Your task to perform on an android device: change notifications settings Image 0: 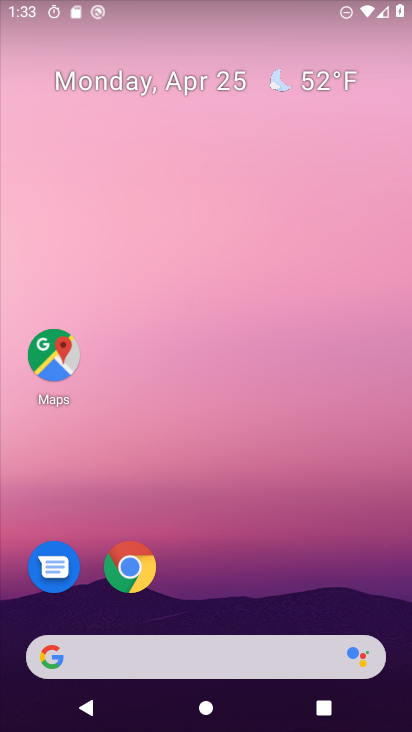
Step 0: drag from (288, 545) to (313, 29)
Your task to perform on an android device: change notifications settings Image 1: 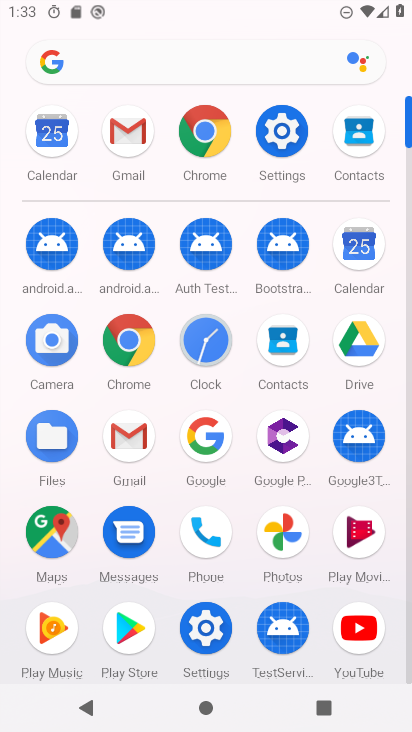
Step 1: click (281, 130)
Your task to perform on an android device: change notifications settings Image 2: 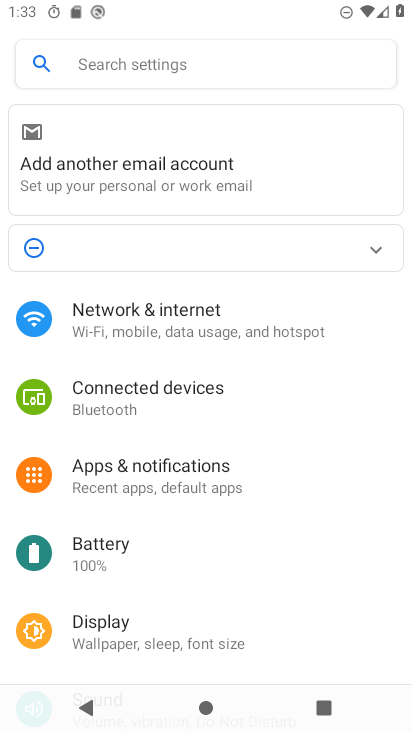
Step 2: click (203, 471)
Your task to perform on an android device: change notifications settings Image 3: 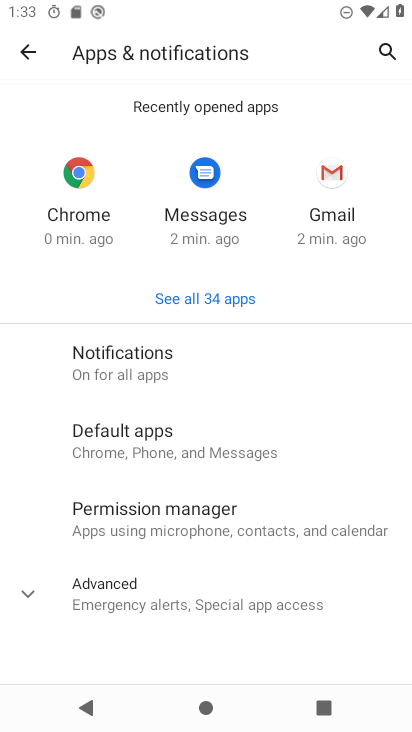
Step 3: click (149, 360)
Your task to perform on an android device: change notifications settings Image 4: 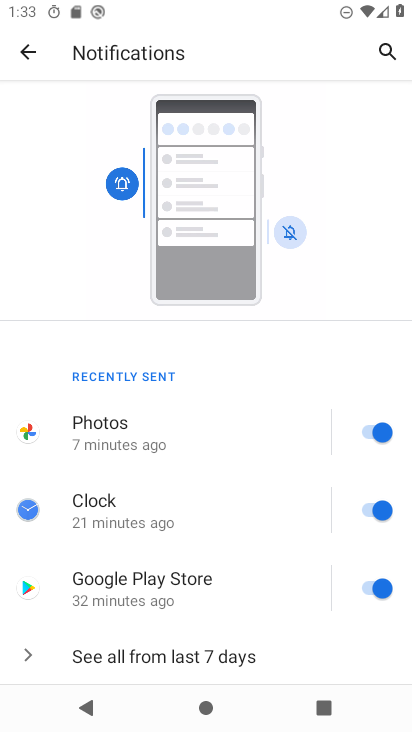
Step 4: click (235, 655)
Your task to perform on an android device: change notifications settings Image 5: 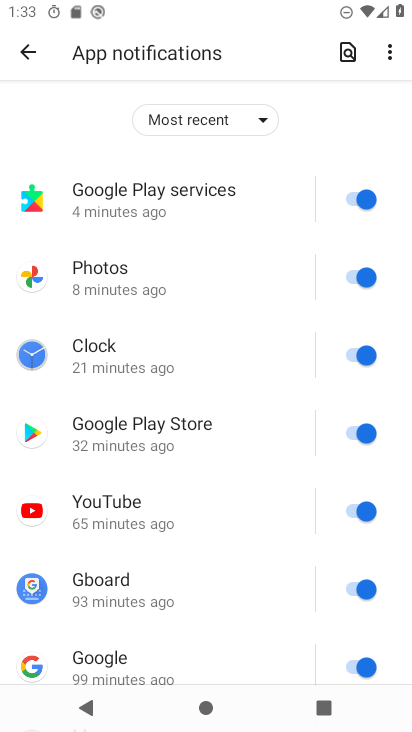
Step 5: click (354, 196)
Your task to perform on an android device: change notifications settings Image 6: 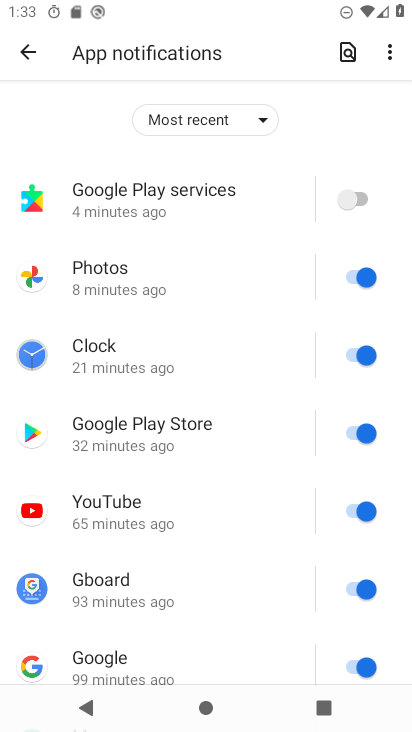
Step 6: click (360, 274)
Your task to perform on an android device: change notifications settings Image 7: 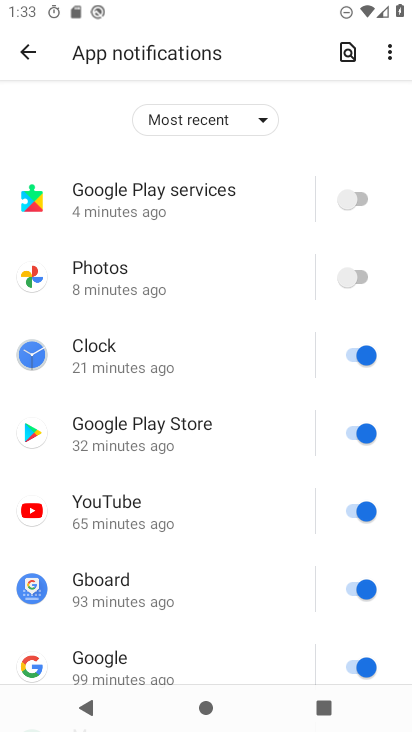
Step 7: click (358, 351)
Your task to perform on an android device: change notifications settings Image 8: 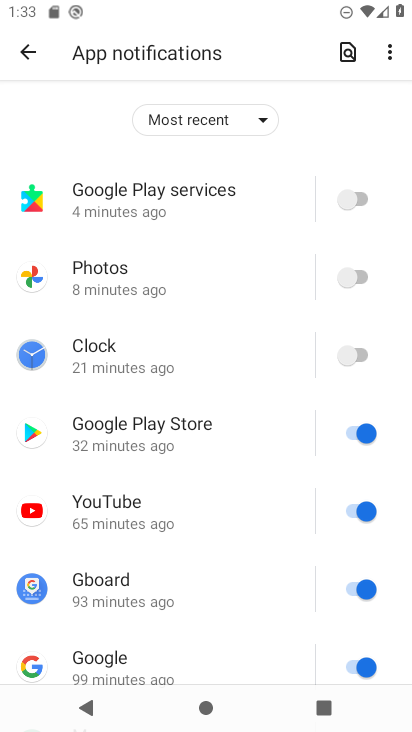
Step 8: click (361, 419)
Your task to perform on an android device: change notifications settings Image 9: 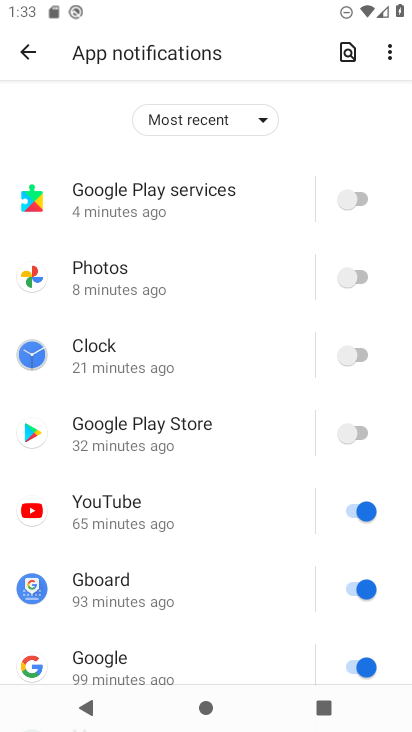
Step 9: click (361, 512)
Your task to perform on an android device: change notifications settings Image 10: 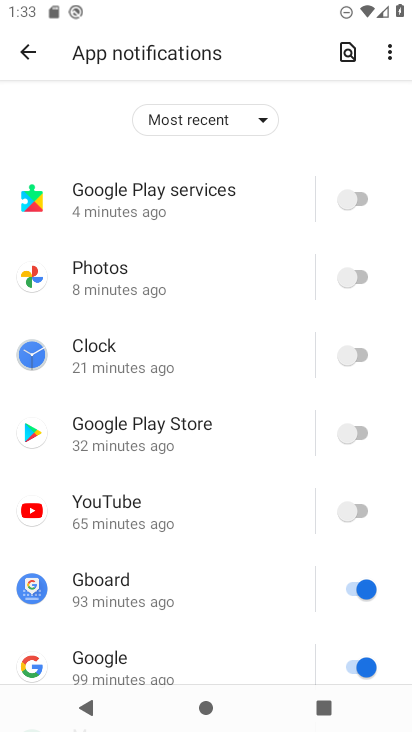
Step 10: click (360, 579)
Your task to perform on an android device: change notifications settings Image 11: 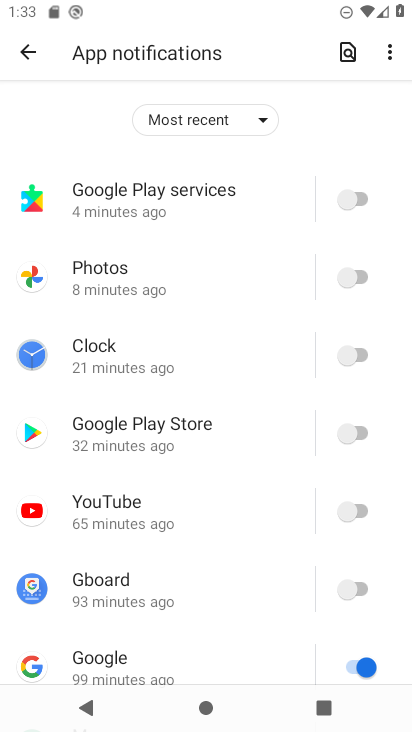
Step 11: click (355, 657)
Your task to perform on an android device: change notifications settings Image 12: 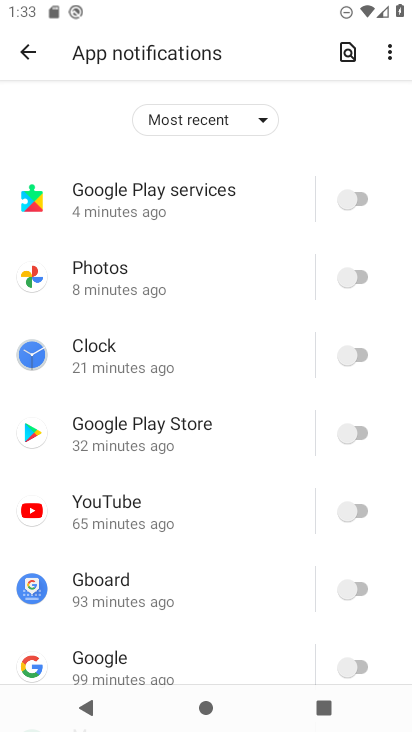
Step 12: drag from (281, 610) to (279, 103)
Your task to perform on an android device: change notifications settings Image 13: 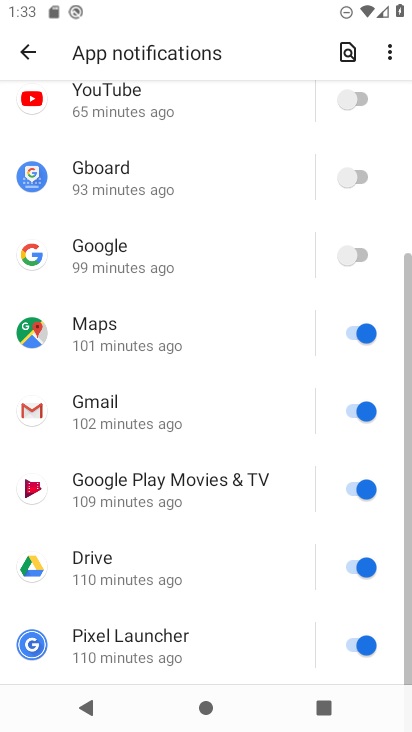
Step 13: drag from (217, 528) to (233, 295)
Your task to perform on an android device: change notifications settings Image 14: 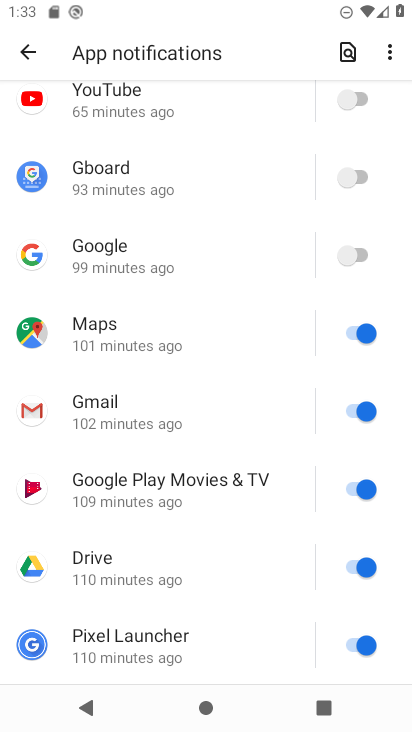
Step 14: click (359, 330)
Your task to perform on an android device: change notifications settings Image 15: 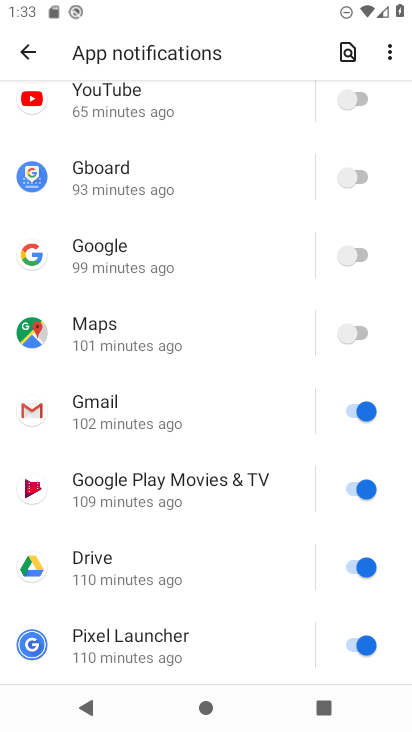
Step 15: click (353, 399)
Your task to perform on an android device: change notifications settings Image 16: 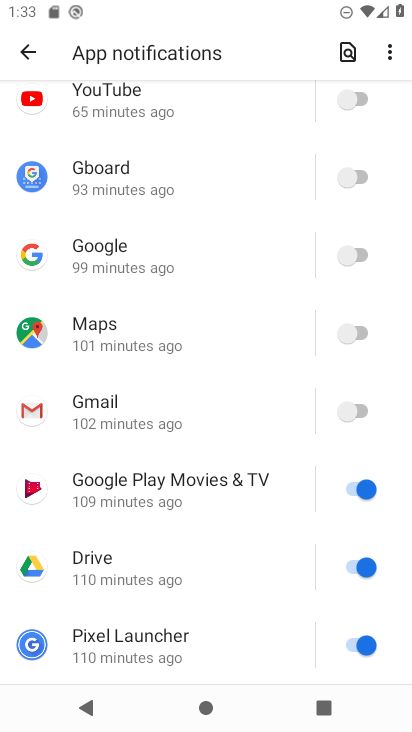
Step 16: click (357, 475)
Your task to perform on an android device: change notifications settings Image 17: 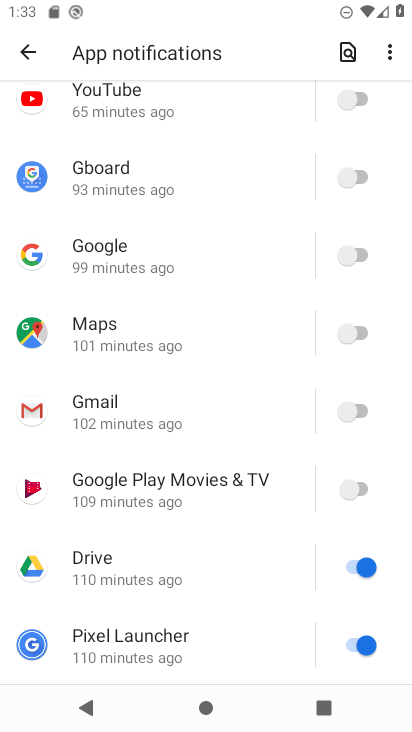
Step 17: click (359, 565)
Your task to perform on an android device: change notifications settings Image 18: 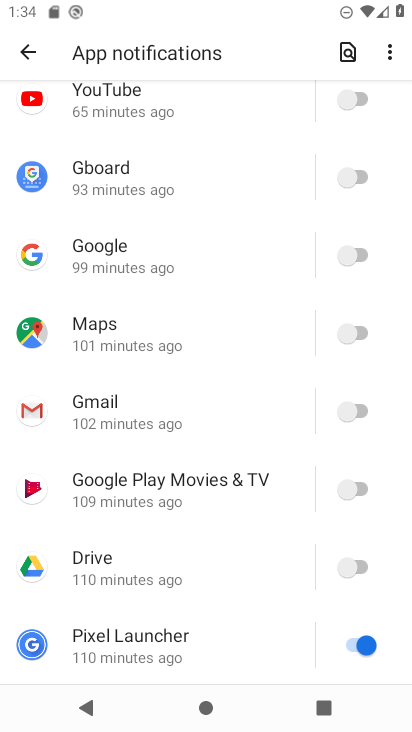
Step 18: click (357, 640)
Your task to perform on an android device: change notifications settings Image 19: 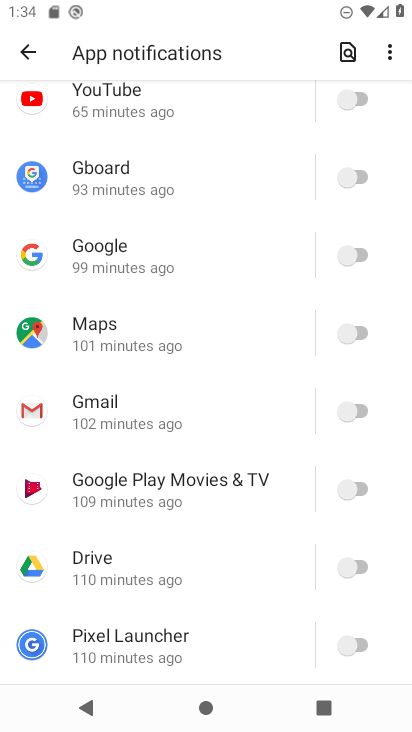
Step 19: task complete